Your task to perform on an android device: Do I have any events today? Image 0: 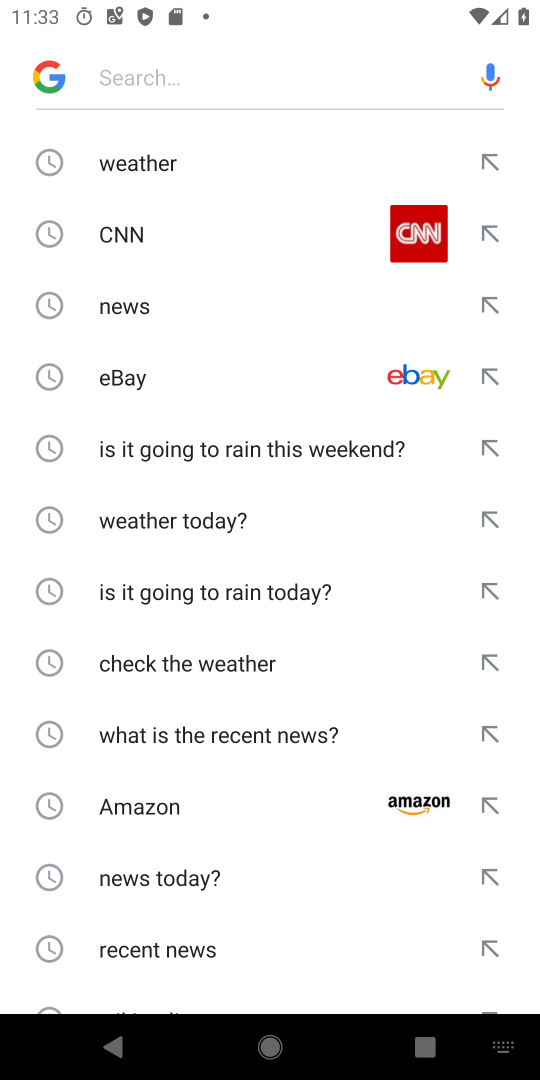
Step 0: press home button
Your task to perform on an android device: Do I have any events today? Image 1: 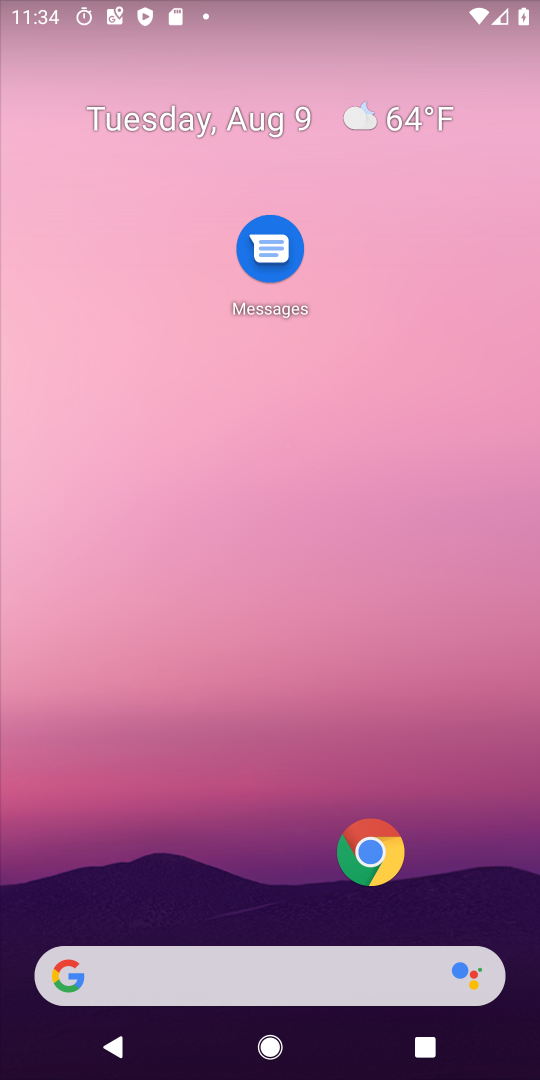
Step 1: click (296, 119)
Your task to perform on an android device: Do I have any events today? Image 2: 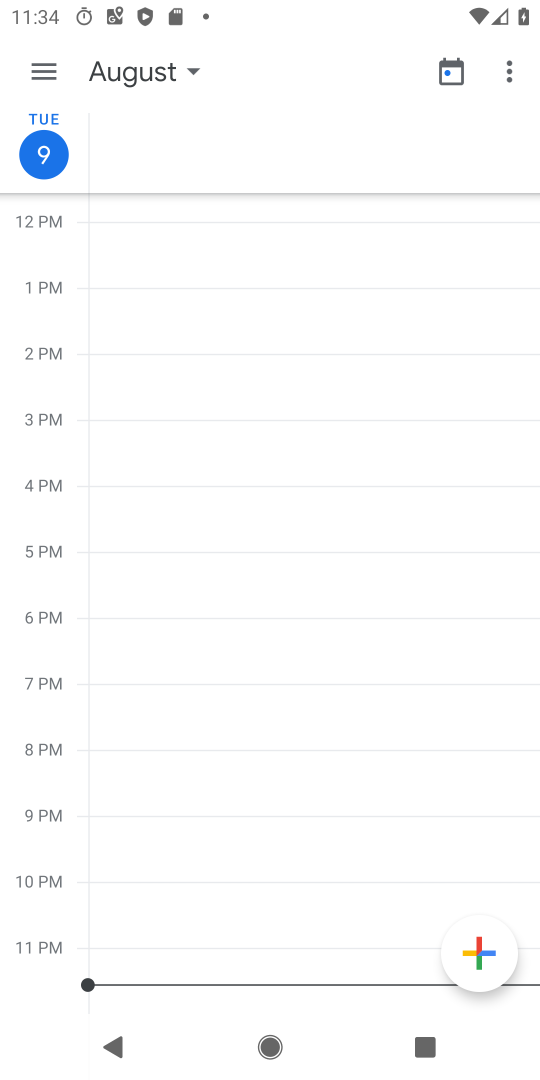
Step 2: task complete